Your task to perform on an android device: Open internet settings Image 0: 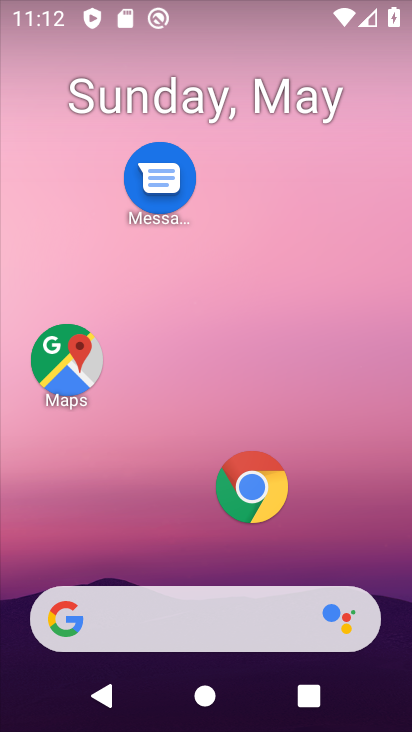
Step 0: drag from (333, 561) to (406, 0)
Your task to perform on an android device: Open internet settings Image 1: 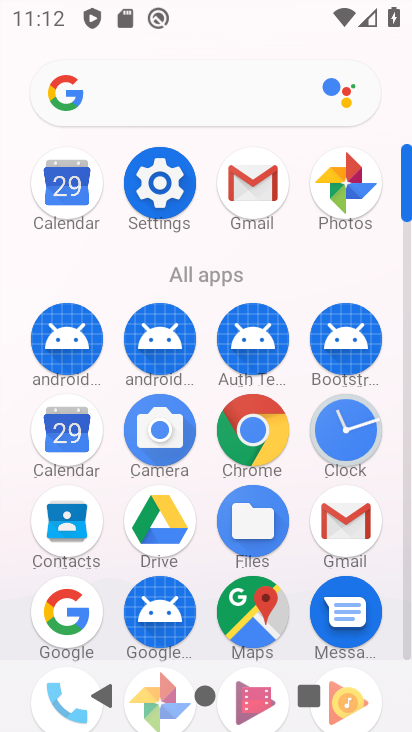
Step 1: click (167, 190)
Your task to perform on an android device: Open internet settings Image 2: 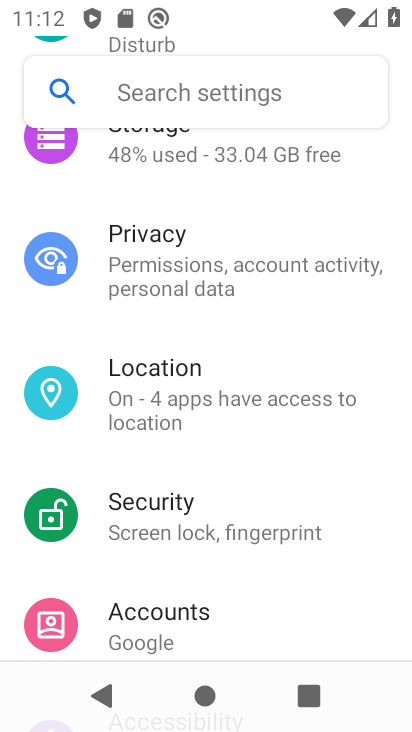
Step 2: drag from (167, 189) to (186, 360)
Your task to perform on an android device: Open internet settings Image 3: 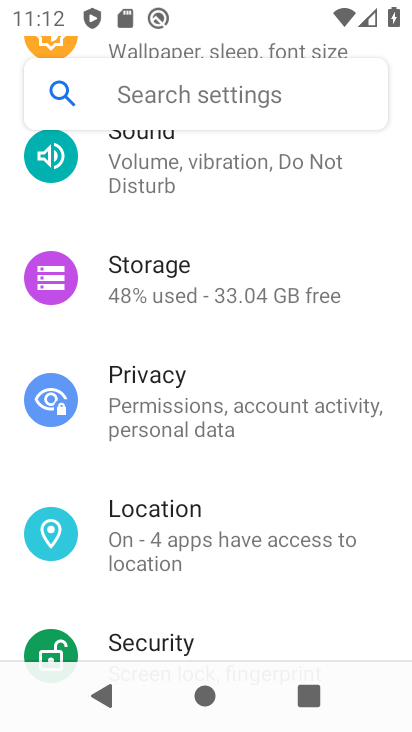
Step 3: drag from (205, 218) to (221, 404)
Your task to perform on an android device: Open internet settings Image 4: 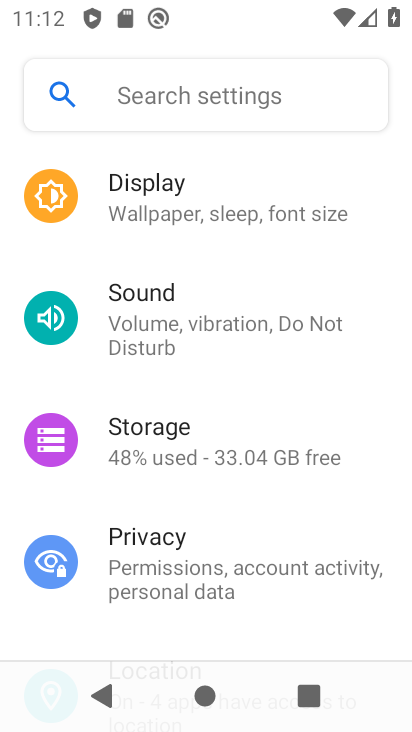
Step 4: drag from (228, 228) to (203, 423)
Your task to perform on an android device: Open internet settings Image 5: 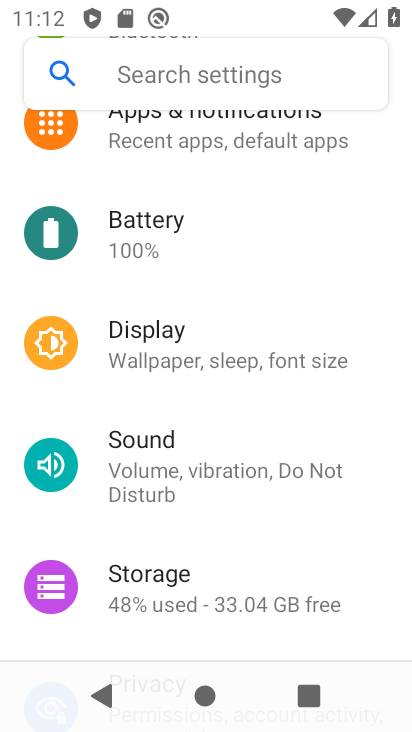
Step 5: drag from (221, 244) to (213, 408)
Your task to perform on an android device: Open internet settings Image 6: 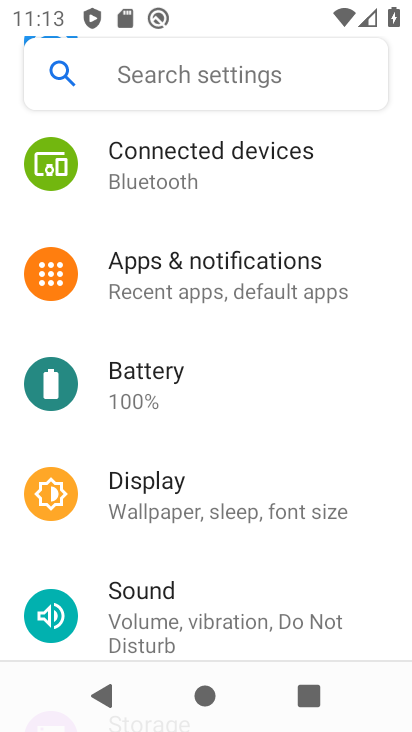
Step 6: drag from (212, 251) to (243, 418)
Your task to perform on an android device: Open internet settings Image 7: 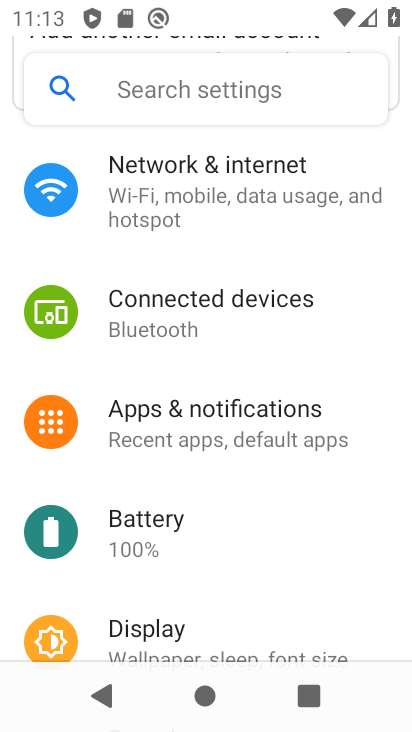
Step 7: click (236, 200)
Your task to perform on an android device: Open internet settings Image 8: 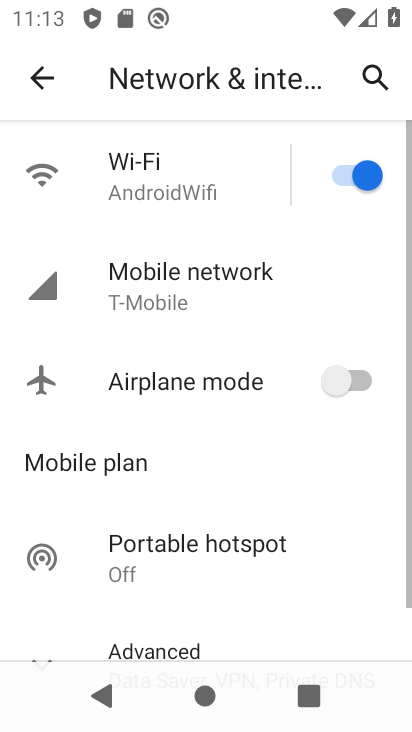
Step 8: click (187, 288)
Your task to perform on an android device: Open internet settings Image 9: 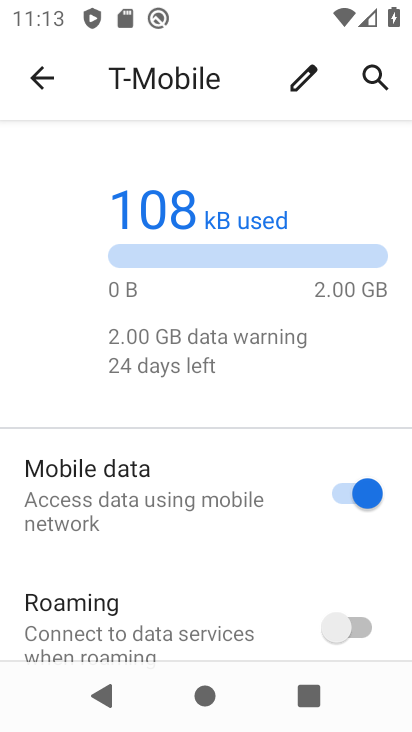
Step 9: task complete